Your task to perform on an android device: empty trash in the gmail app Image 0: 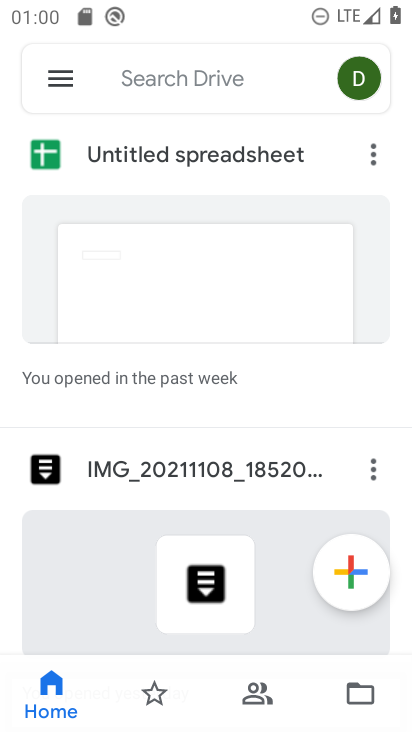
Step 0: press home button
Your task to perform on an android device: empty trash in the gmail app Image 1: 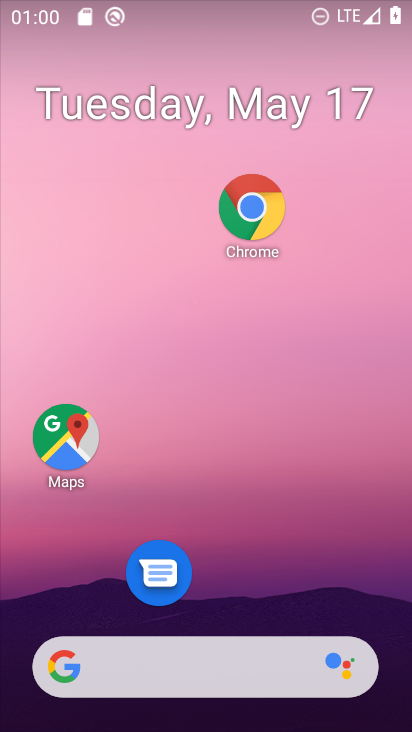
Step 1: drag from (280, 685) to (356, 63)
Your task to perform on an android device: empty trash in the gmail app Image 2: 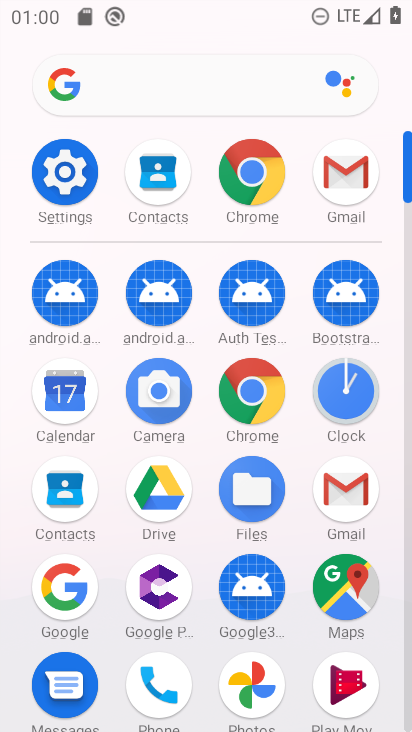
Step 2: click (360, 486)
Your task to perform on an android device: empty trash in the gmail app Image 3: 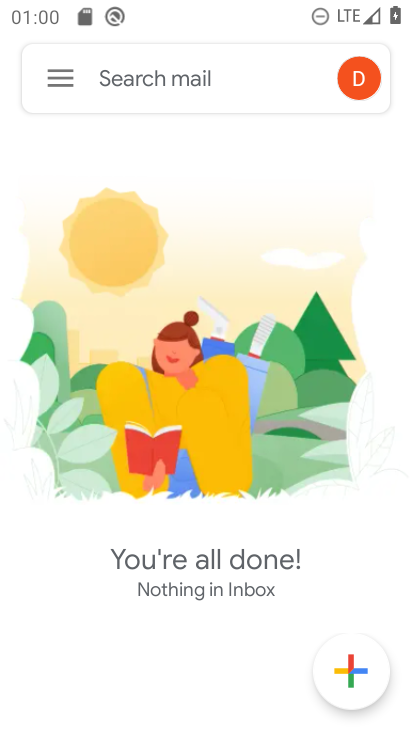
Step 3: click (69, 75)
Your task to perform on an android device: empty trash in the gmail app Image 4: 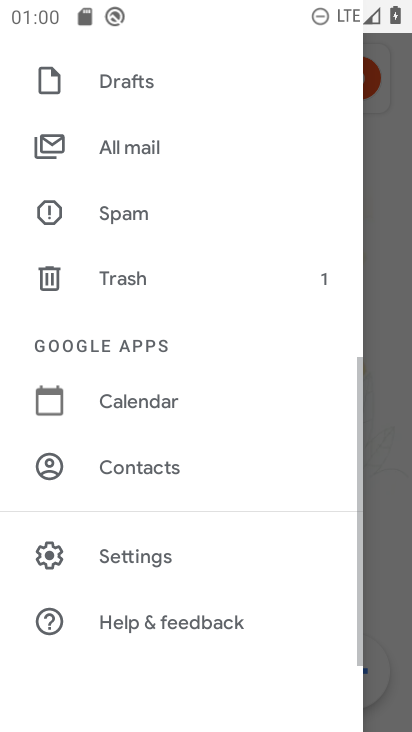
Step 4: click (166, 275)
Your task to perform on an android device: empty trash in the gmail app Image 5: 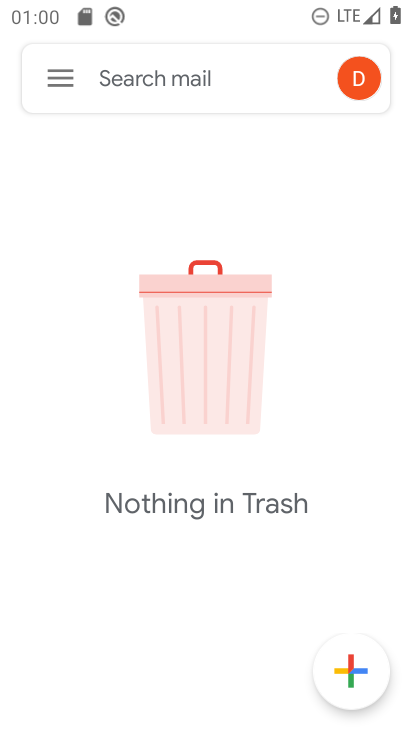
Step 5: task complete